Your task to perform on an android device: manage bookmarks in the chrome app Image 0: 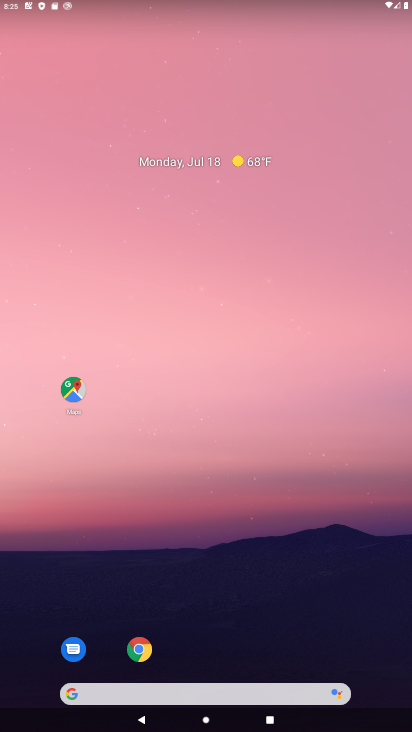
Step 0: click (143, 648)
Your task to perform on an android device: manage bookmarks in the chrome app Image 1: 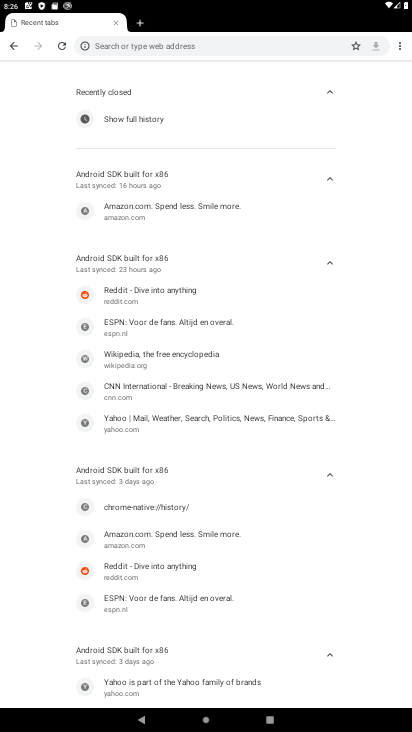
Step 1: click (399, 44)
Your task to perform on an android device: manage bookmarks in the chrome app Image 2: 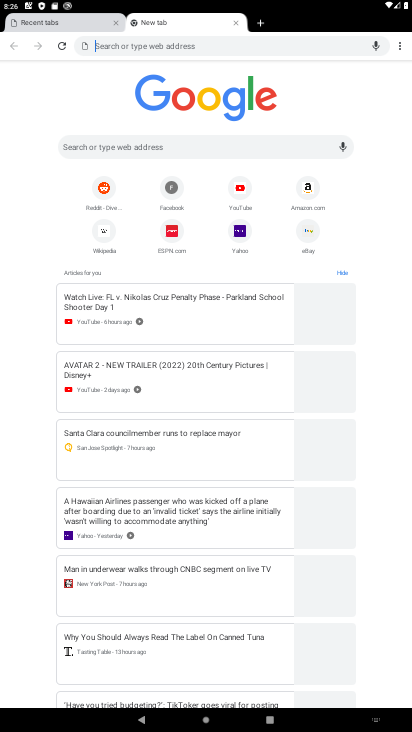
Step 2: click (399, 43)
Your task to perform on an android device: manage bookmarks in the chrome app Image 3: 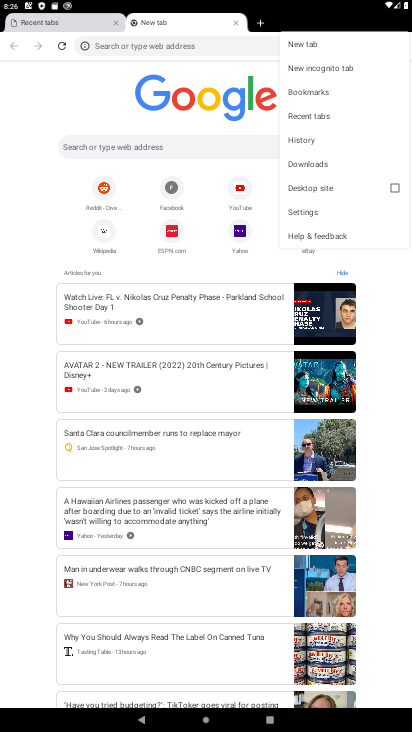
Step 3: click (322, 94)
Your task to perform on an android device: manage bookmarks in the chrome app Image 4: 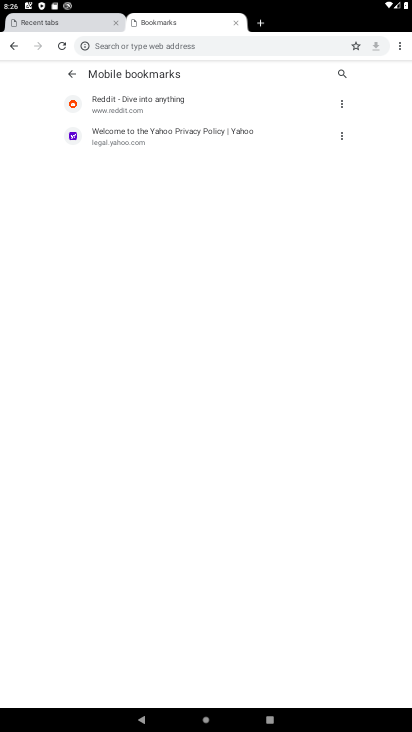
Step 4: click (341, 132)
Your task to perform on an android device: manage bookmarks in the chrome app Image 5: 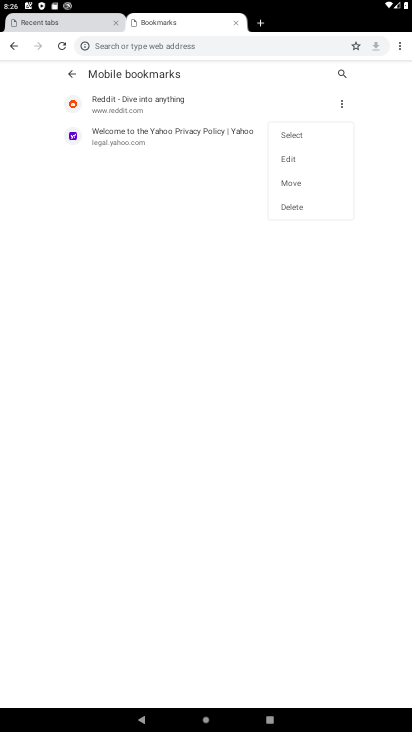
Step 5: click (290, 205)
Your task to perform on an android device: manage bookmarks in the chrome app Image 6: 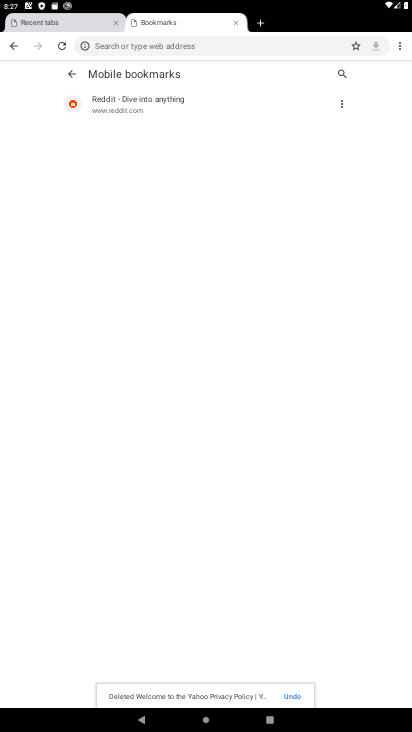
Step 6: task complete